Your task to perform on an android device: check android version Image 0: 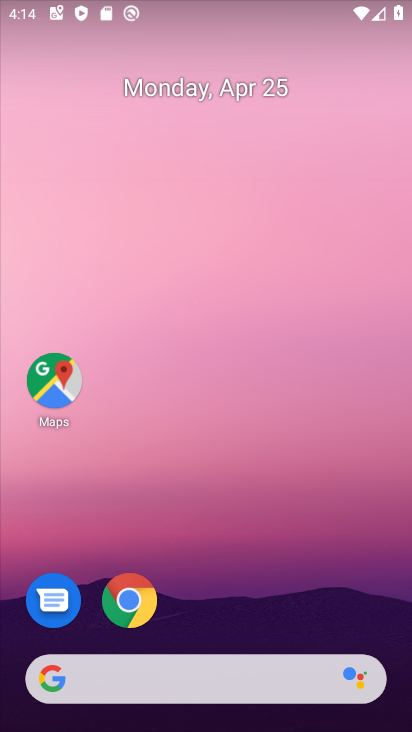
Step 0: drag from (257, 539) to (182, 37)
Your task to perform on an android device: check android version Image 1: 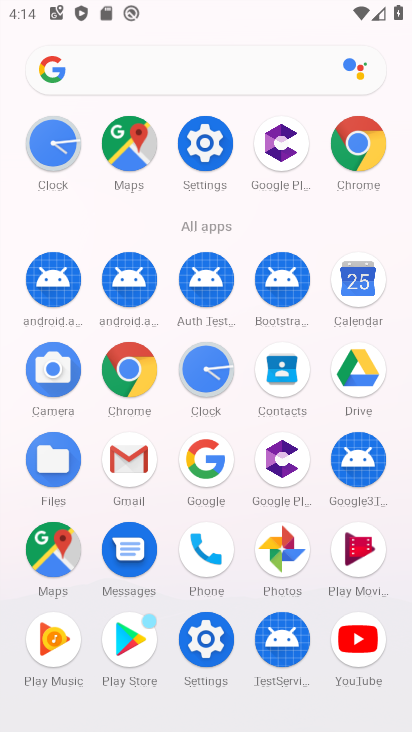
Step 1: click (209, 137)
Your task to perform on an android device: check android version Image 2: 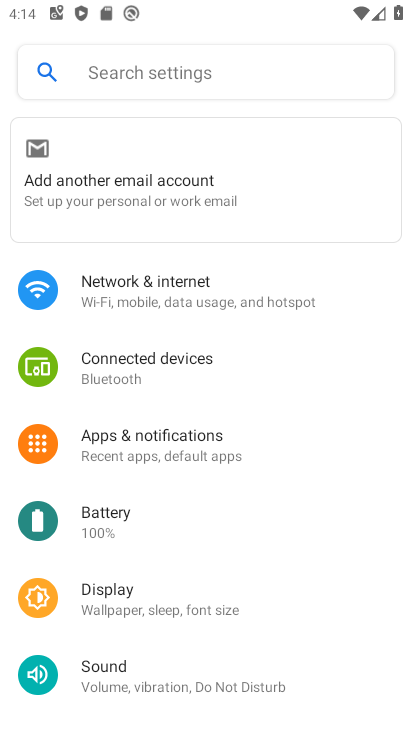
Step 2: drag from (277, 637) to (313, 186)
Your task to perform on an android device: check android version Image 3: 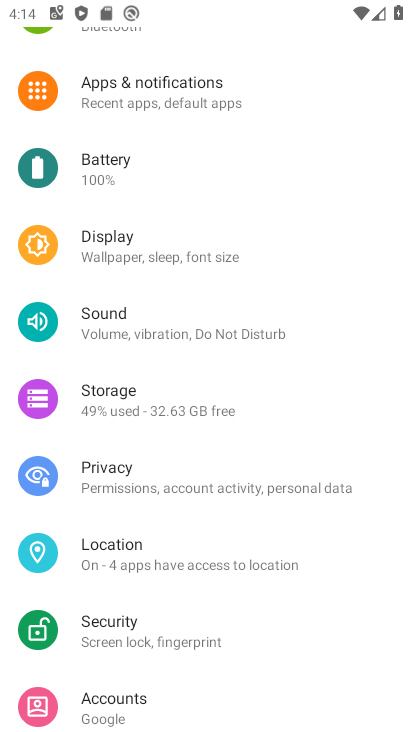
Step 3: drag from (211, 529) to (251, 118)
Your task to perform on an android device: check android version Image 4: 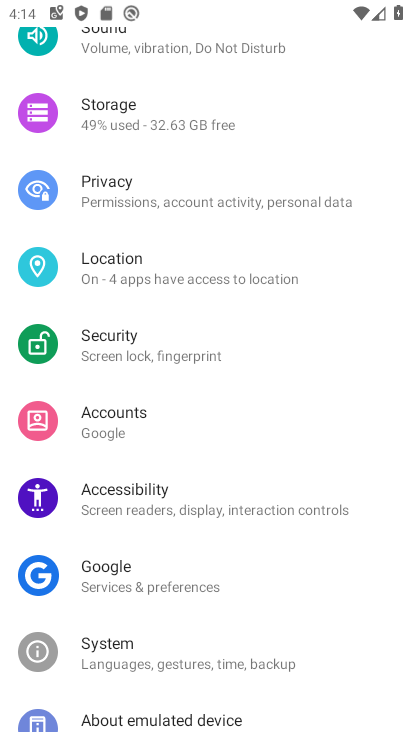
Step 4: drag from (233, 340) to (258, 72)
Your task to perform on an android device: check android version Image 5: 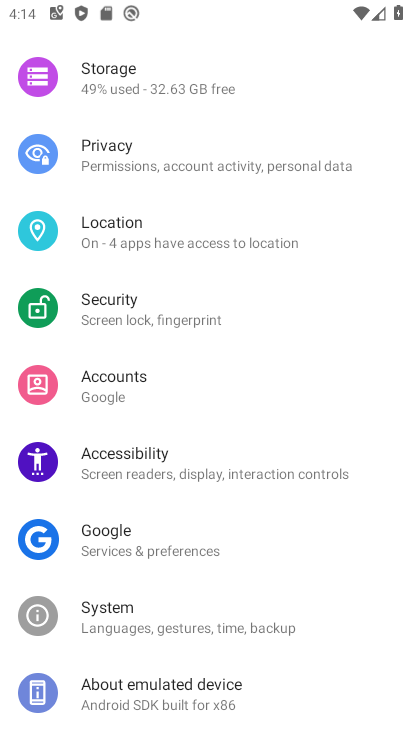
Step 5: click (187, 690)
Your task to perform on an android device: check android version Image 6: 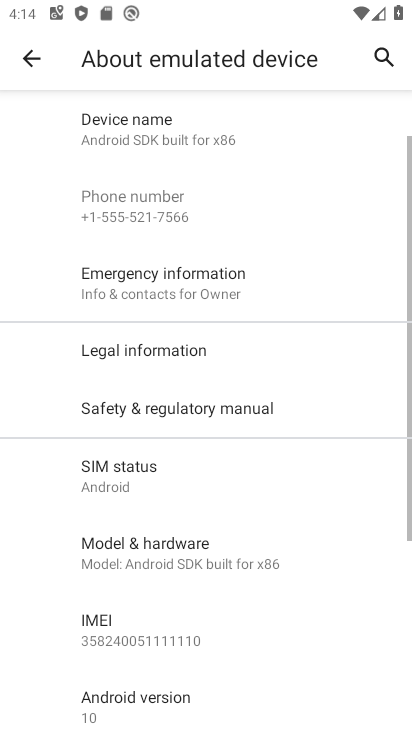
Step 6: drag from (298, 572) to (306, 82)
Your task to perform on an android device: check android version Image 7: 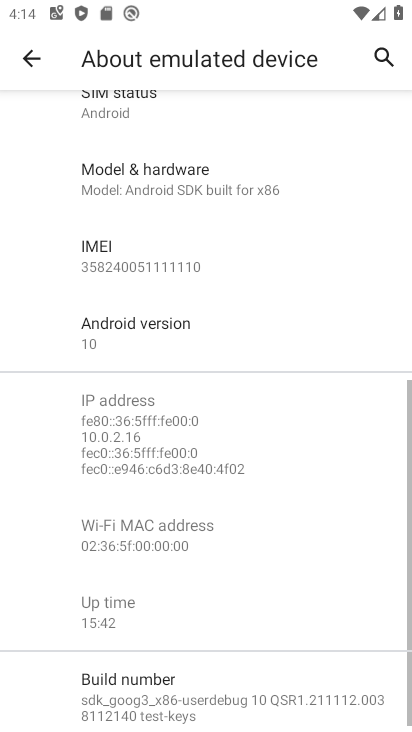
Step 7: click (176, 331)
Your task to perform on an android device: check android version Image 8: 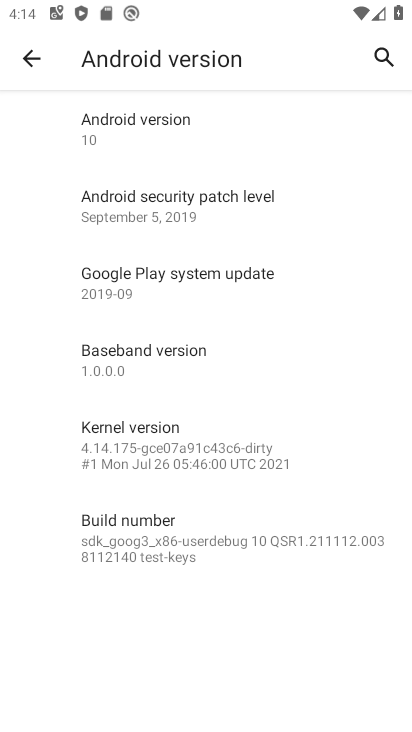
Step 8: task complete